Your task to perform on an android device: Go to CNN.com Image 0: 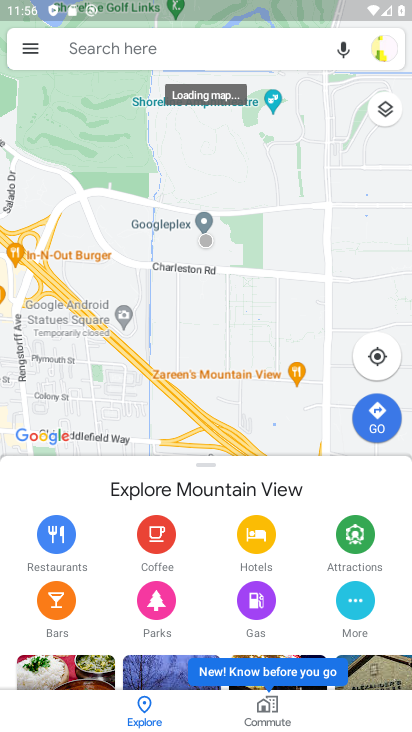
Step 0: press back button
Your task to perform on an android device: Go to CNN.com Image 1: 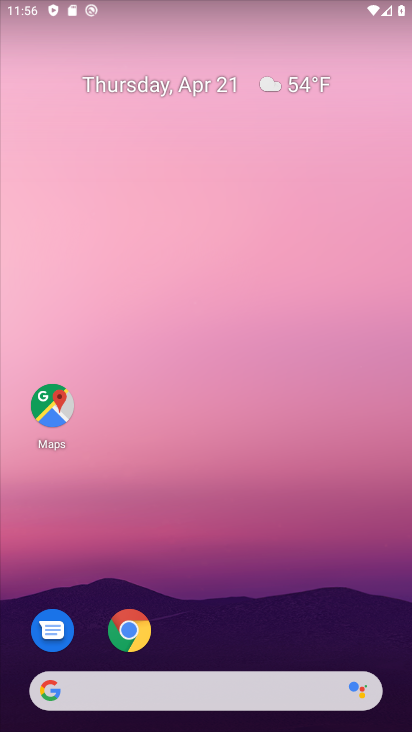
Step 1: click (130, 625)
Your task to perform on an android device: Go to CNN.com Image 2: 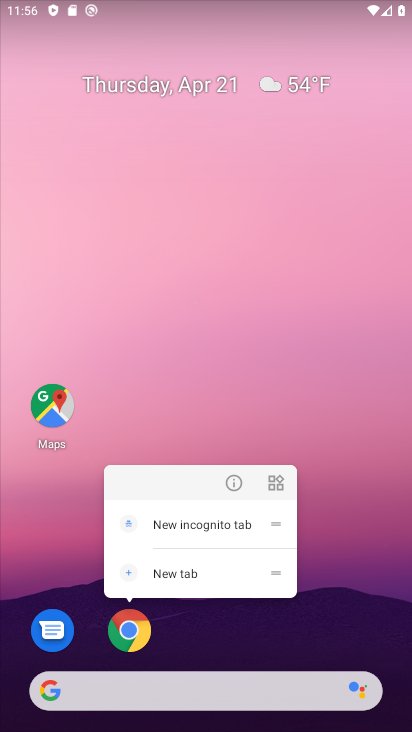
Step 2: click (130, 628)
Your task to perform on an android device: Go to CNN.com Image 3: 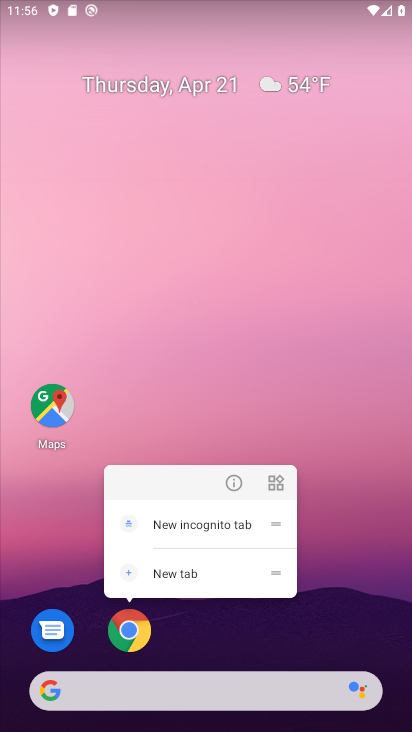
Step 3: click (126, 630)
Your task to perform on an android device: Go to CNN.com Image 4: 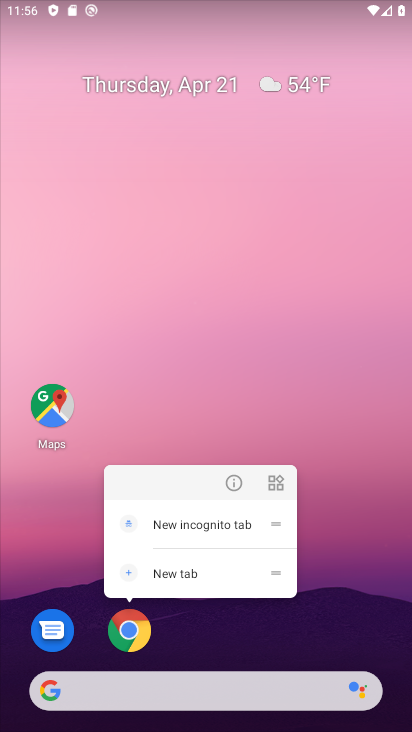
Step 4: click (126, 630)
Your task to perform on an android device: Go to CNN.com Image 5: 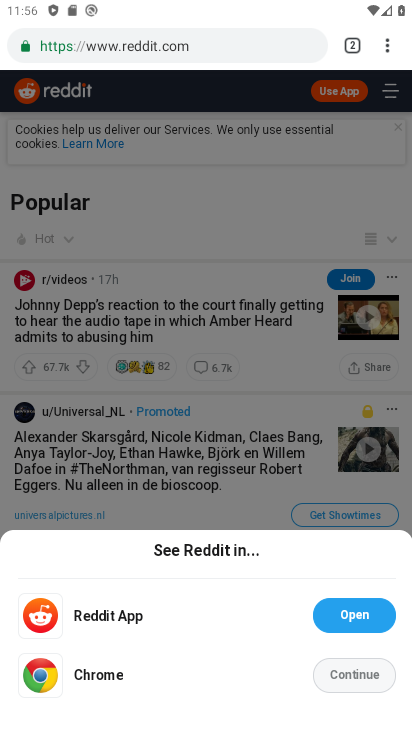
Step 5: click (353, 51)
Your task to perform on an android device: Go to CNN.com Image 6: 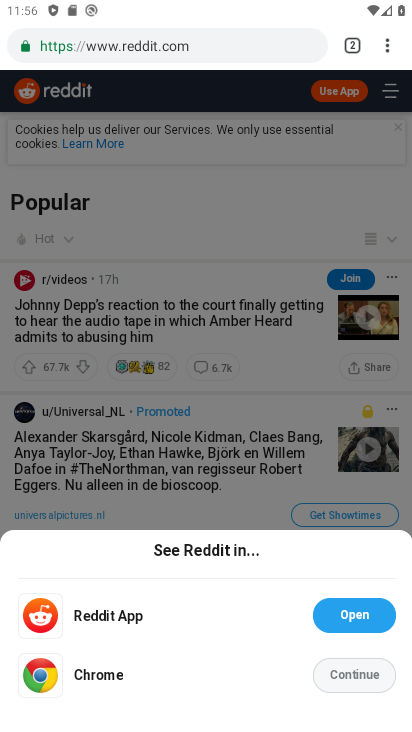
Step 6: click (353, 51)
Your task to perform on an android device: Go to CNN.com Image 7: 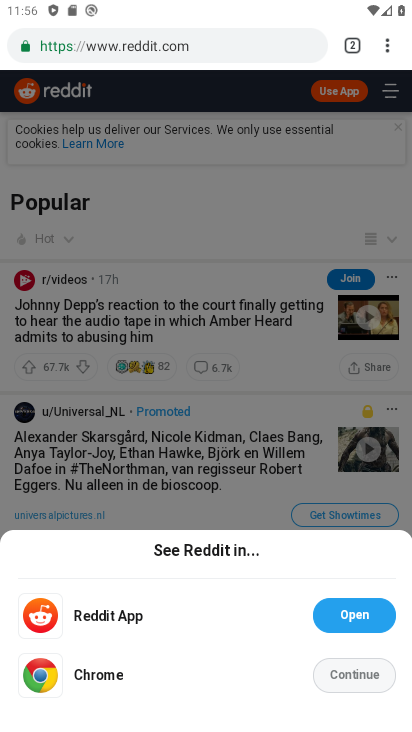
Step 7: click (353, 51)
Your task to perform on an android device: Go to CNN.com Image 8: 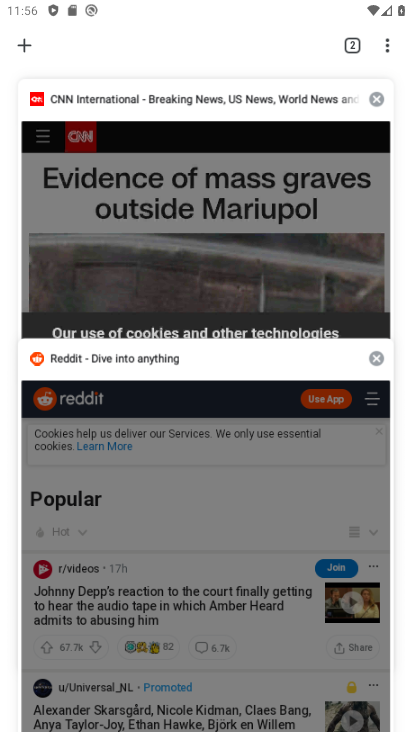
Step 8: click (349, 82)
Your task to perform on an android device: Go to CNN.com Image 9: 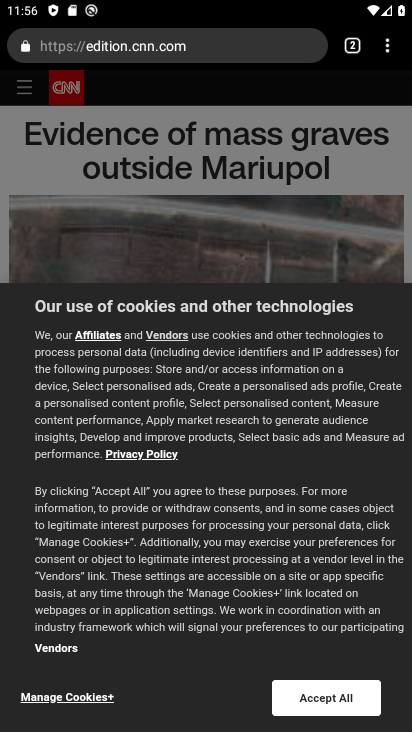
Step 9: click (225, 389)
Your task to perform on an android device: Go to CNN.com Image 10: 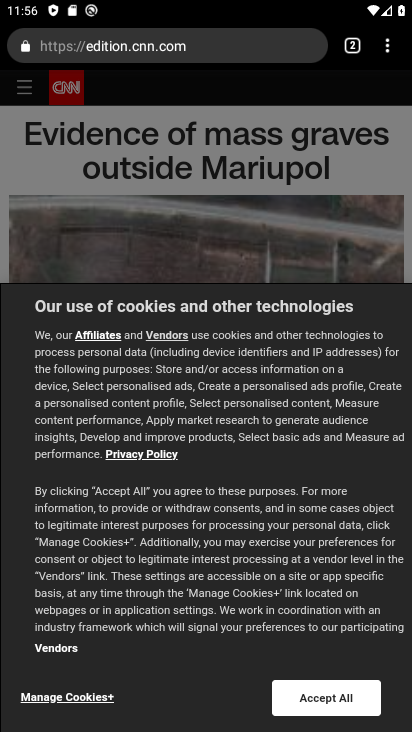
Step 10: task complete